Your task to perform on an android device: open a new tab in the chrome app Image 0: 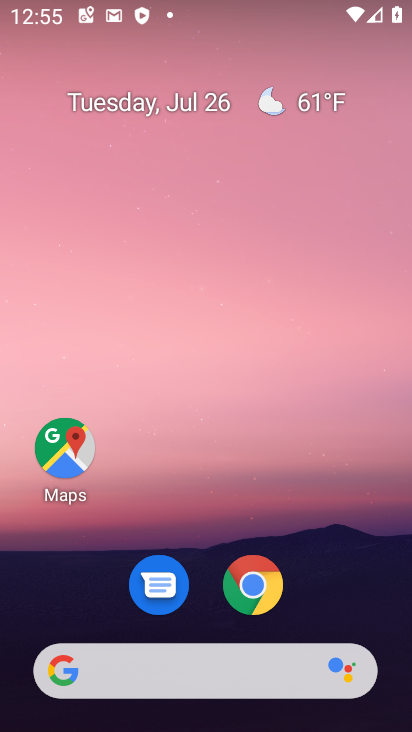
Step 0: press home button
Your task to perform on an android device: open a new tab in the chrome app Image 1: 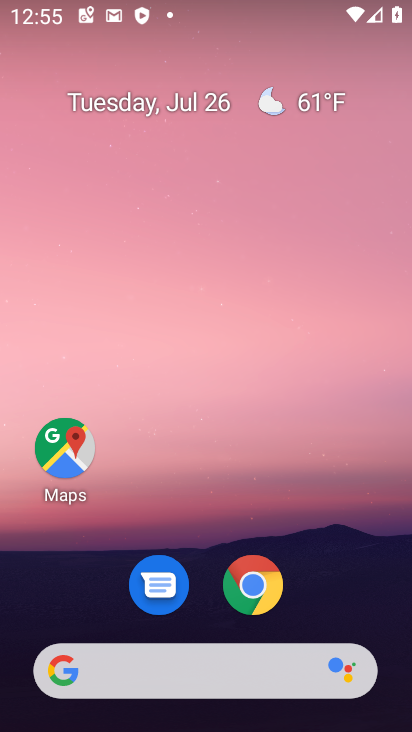
Step 1: click (252, 586)
Your task to perform on an android device: open a new tab in the chrome app Image 2: 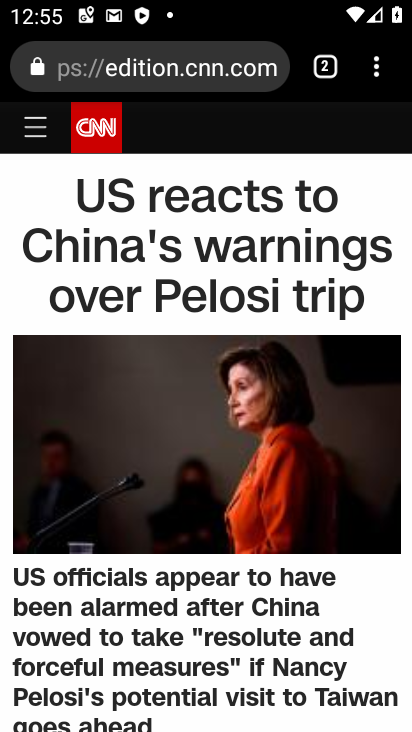
Step 2: task complete